Your task to perform on an android device: open app "ZOOM Cloud Meetings" (install if not already installed) and go to login screen Image 0: 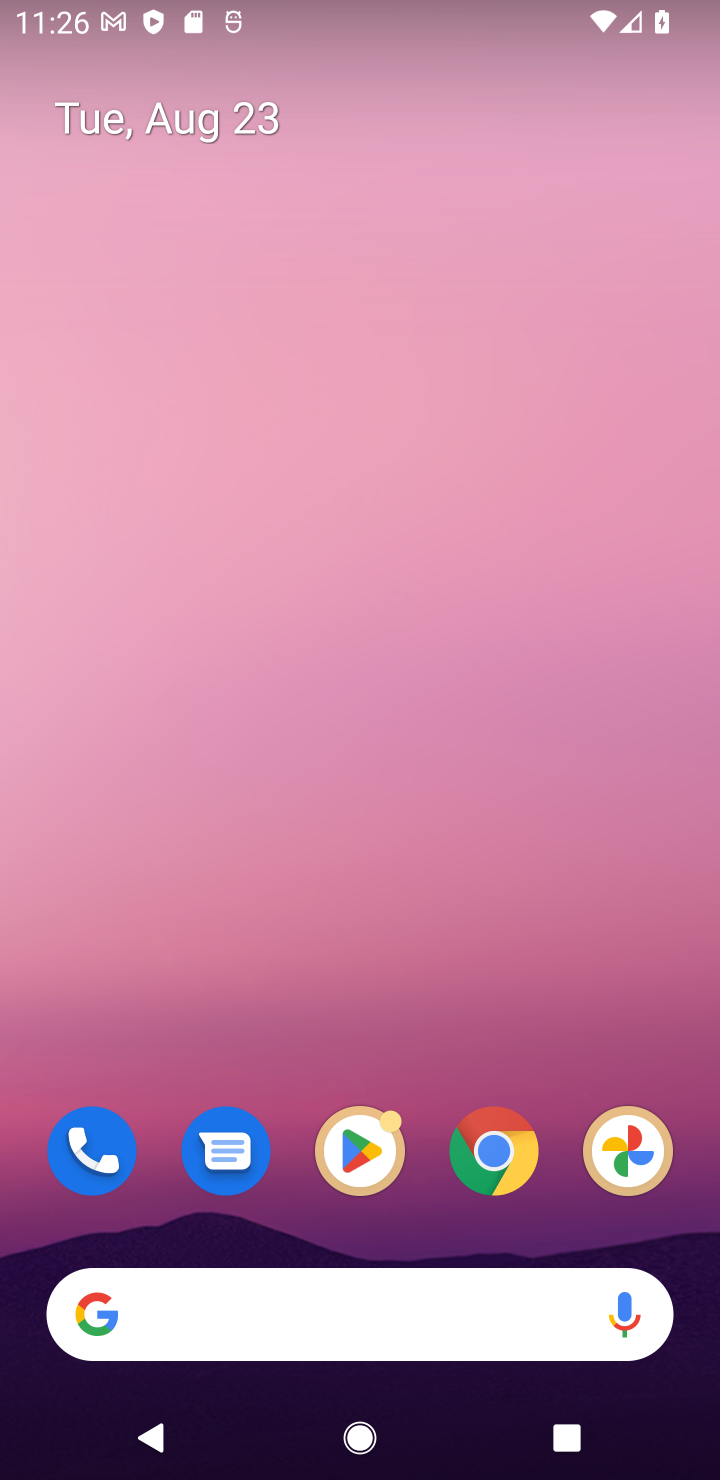
Step 0: drag from (334, 1262) to (411, 83)
Your task to perform on an android device: open app "ZOOM Cloud Meetings" (install if not already installed) and go to login screen Image 1: 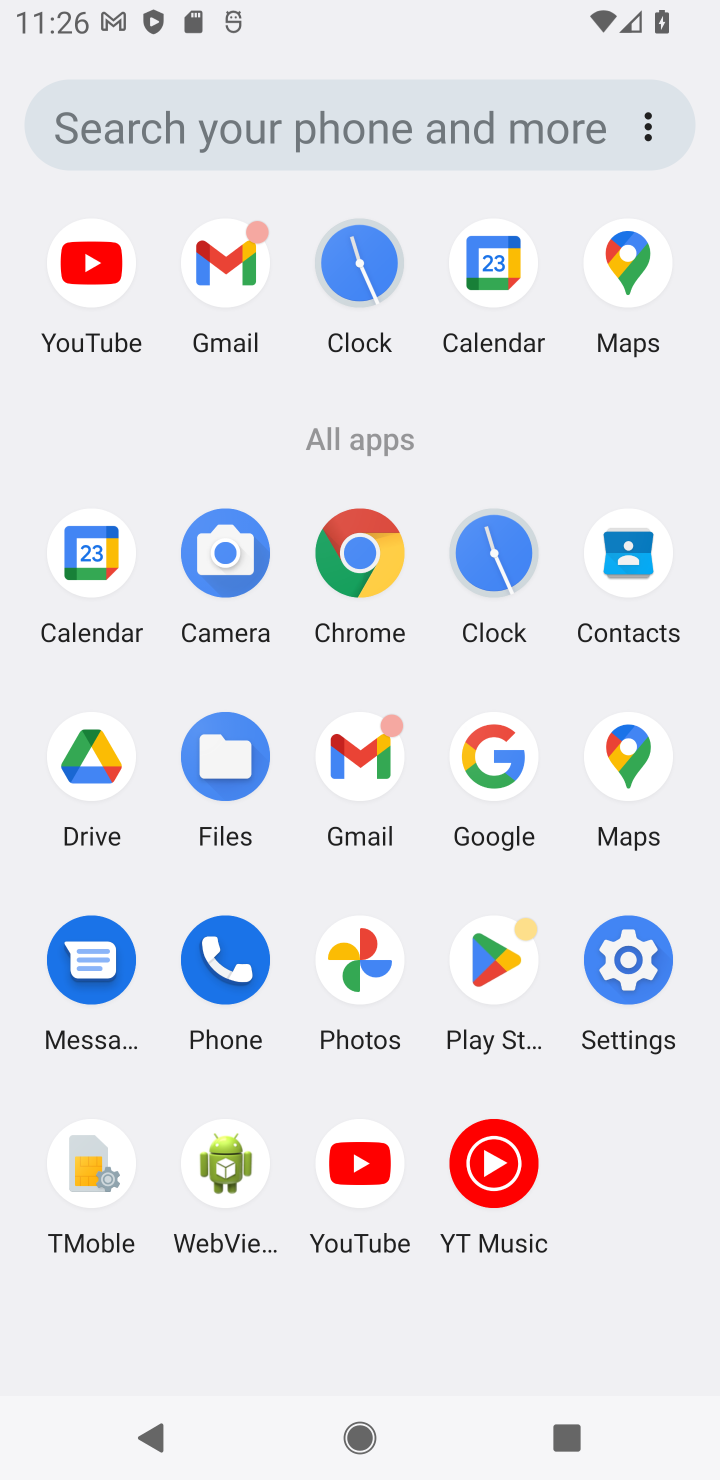
Step 1: click (494, 969)
Your task to perform on an android device: open app "ZOOM Cloud Meetings" (install if not already installed) and go to login screen Image 2: 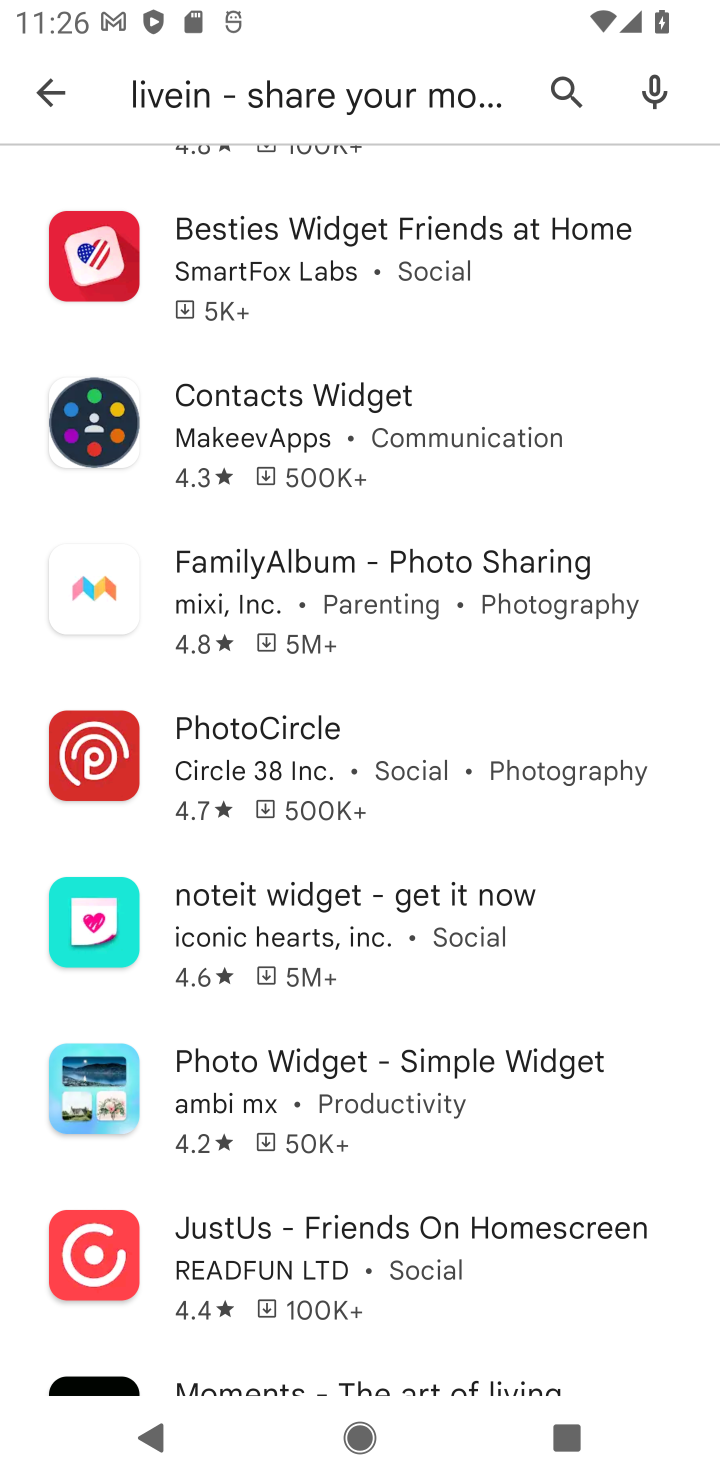
Step 2: press back button
Your task to perform on an android device: open app "ZOOM Cloud Meetings" (install if not already installed) and go to login screen Image 3: 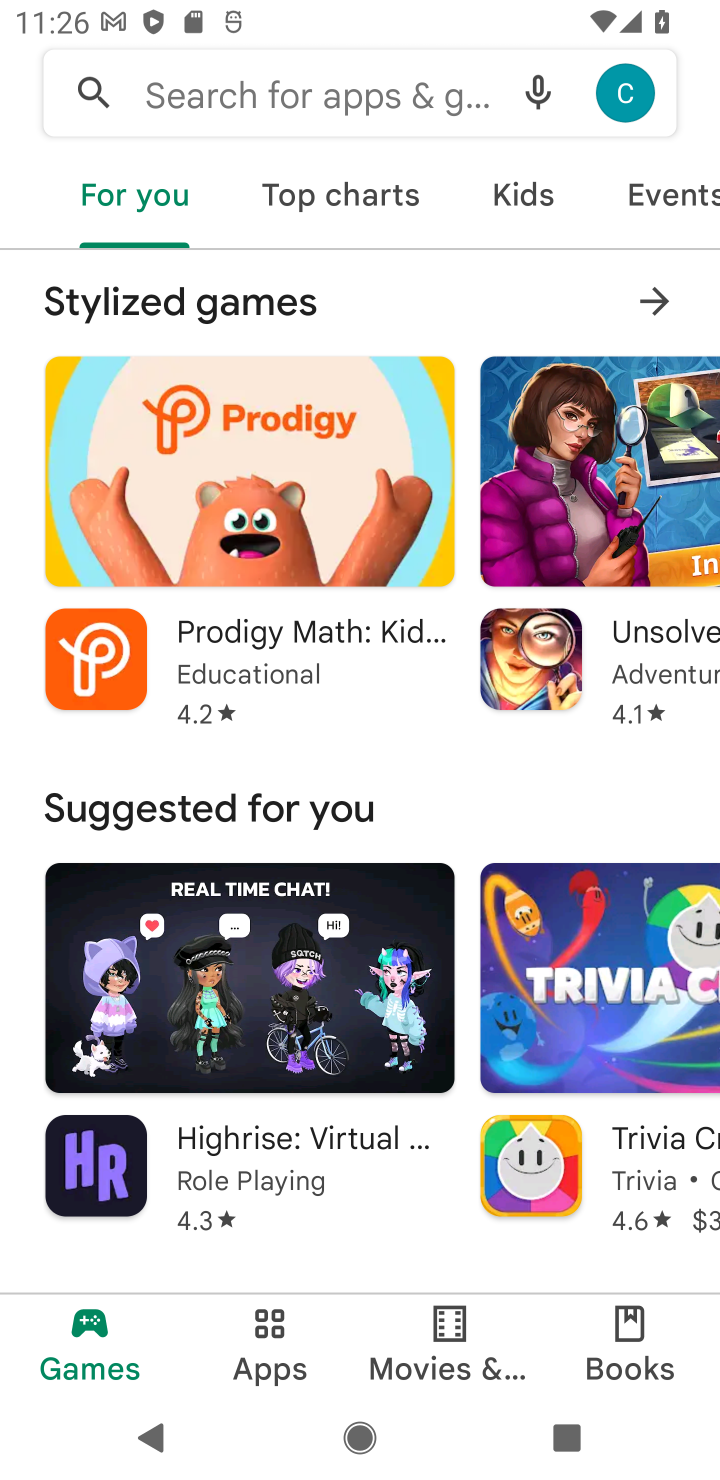
Step 3: click (378, 104)
Your task to perform on an android device: open app "ZOOM Cloud Meetings" (install if not already installed) and go to login screen Image 4: 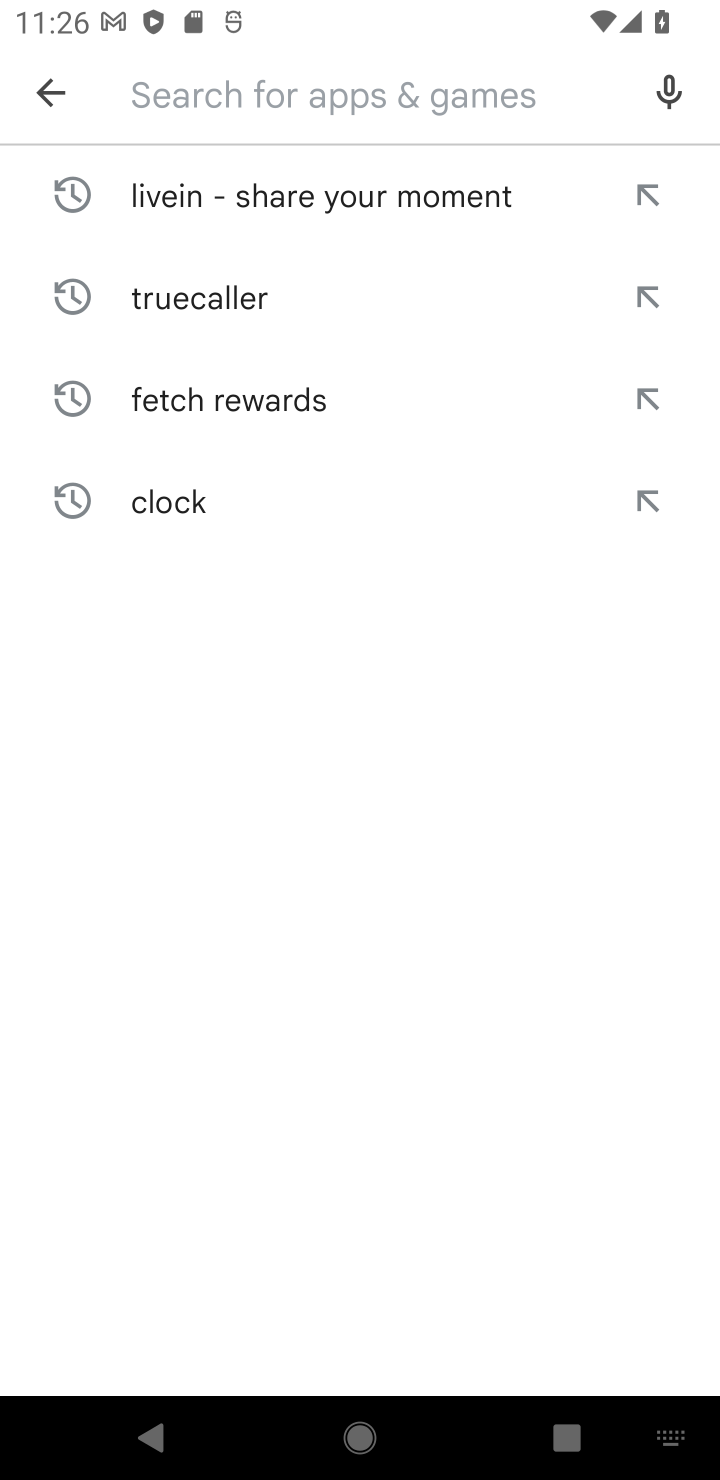
Step 4: type "ZOOM Cloud Meetings"
Your task to perform on an android device: open app "ZOOM Cloud Meetings" (install if not already installed) and go to login screen Image 5: 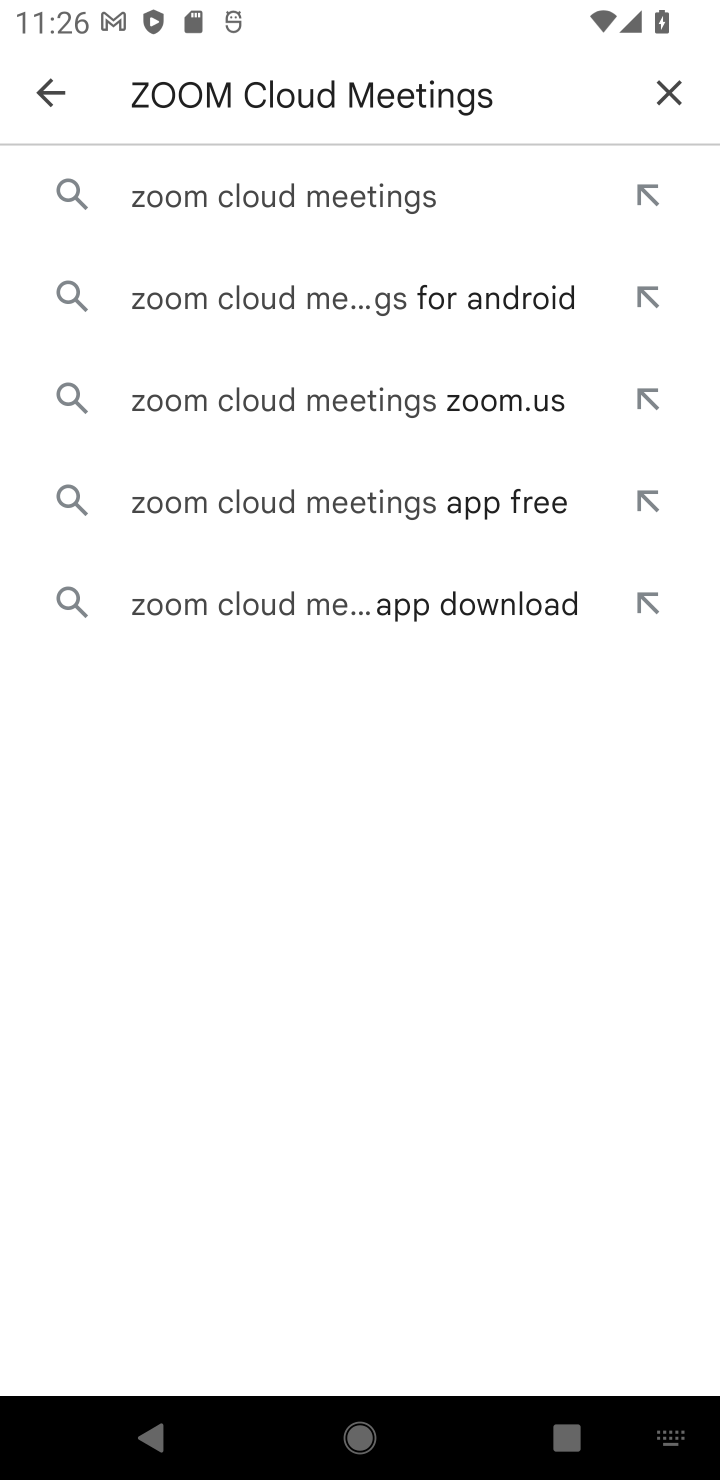
Step 5: click (360, 209)
Your task to perform on an android device: open app "ZOOM Cloud Meetings" (install if not already installed) and go to login screen Image 6: 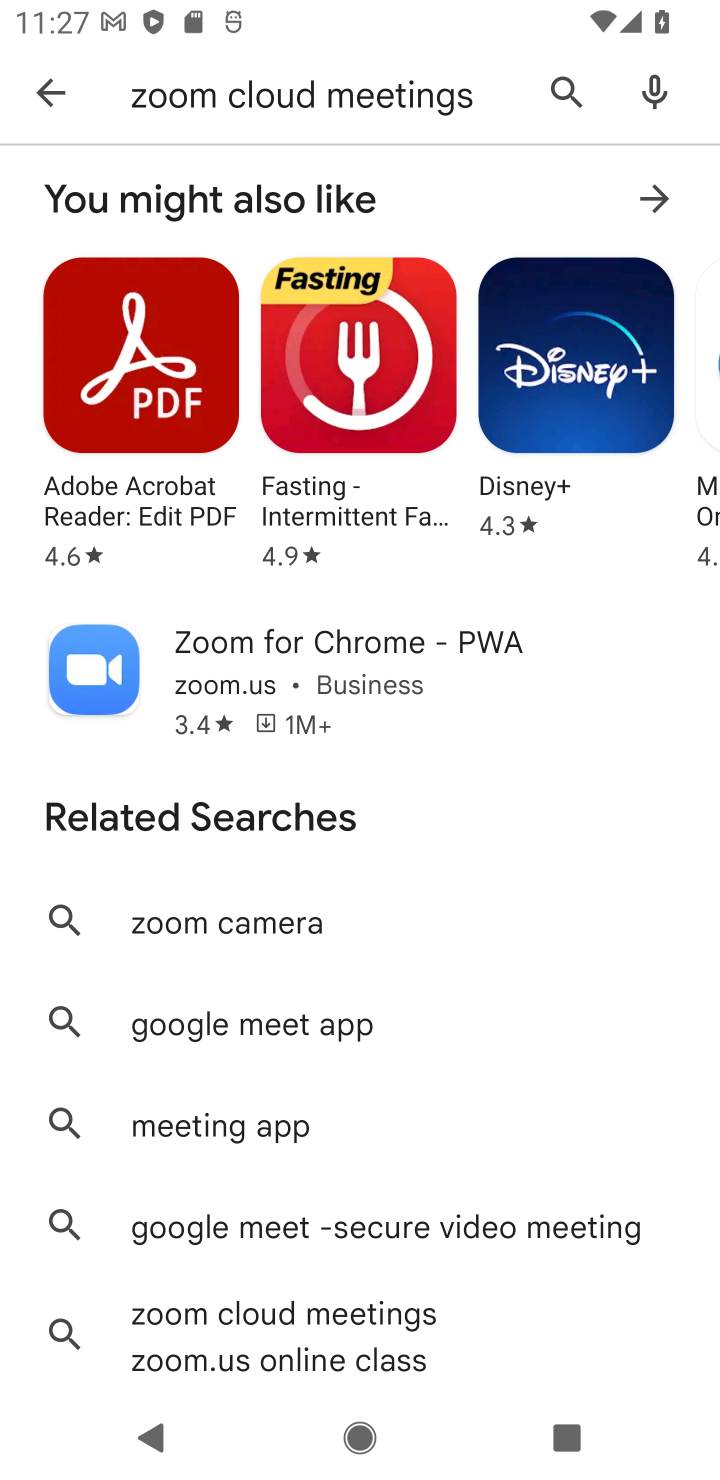
Step 6: click (143, 1315)
Your task to perform on an android device: open app "ZOOM Cloud Meetings" (install if not already installed) and go to login screen Image 7: 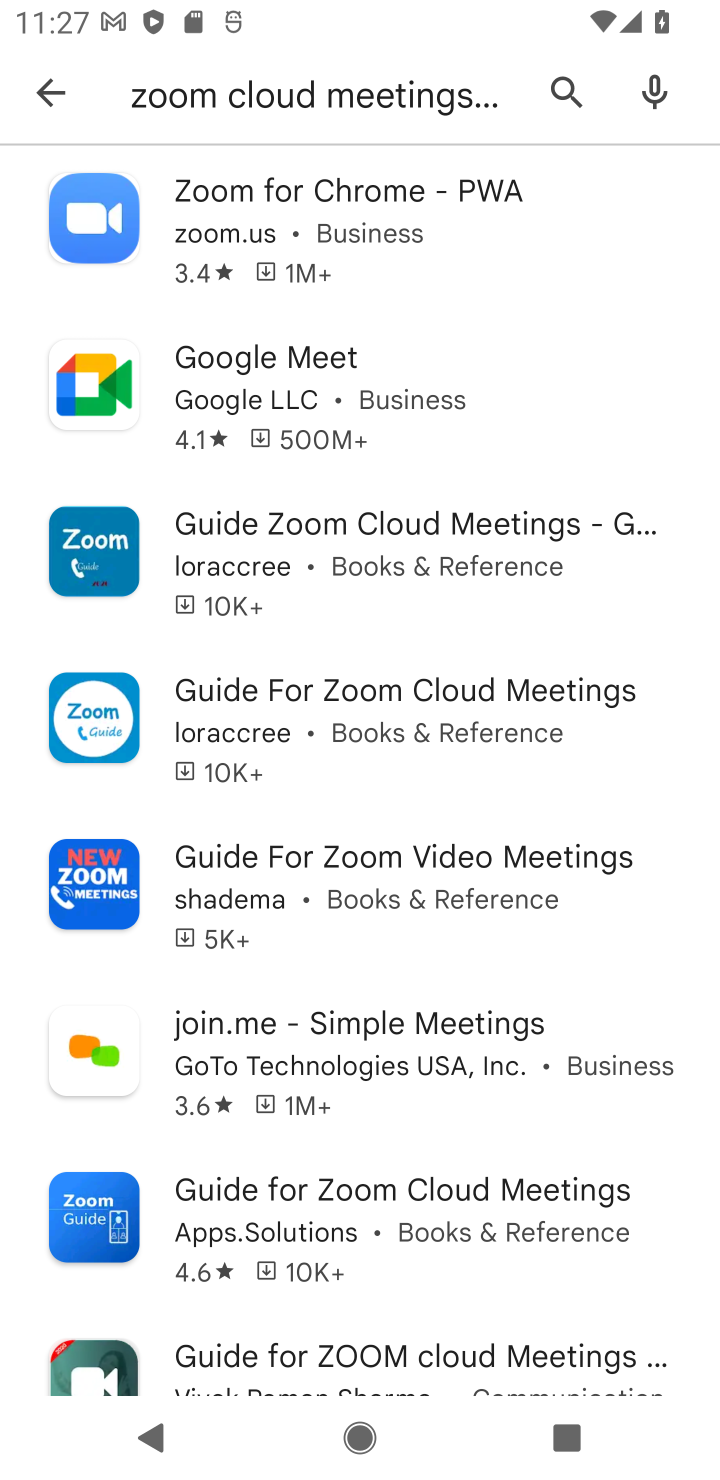
Step 7: drag from (437, 1250) to (583, 1011)
Your task to perform on an android device: open app "ZOOM Cloud Meetings" (install if not already installed) and go to login screen Image 8: 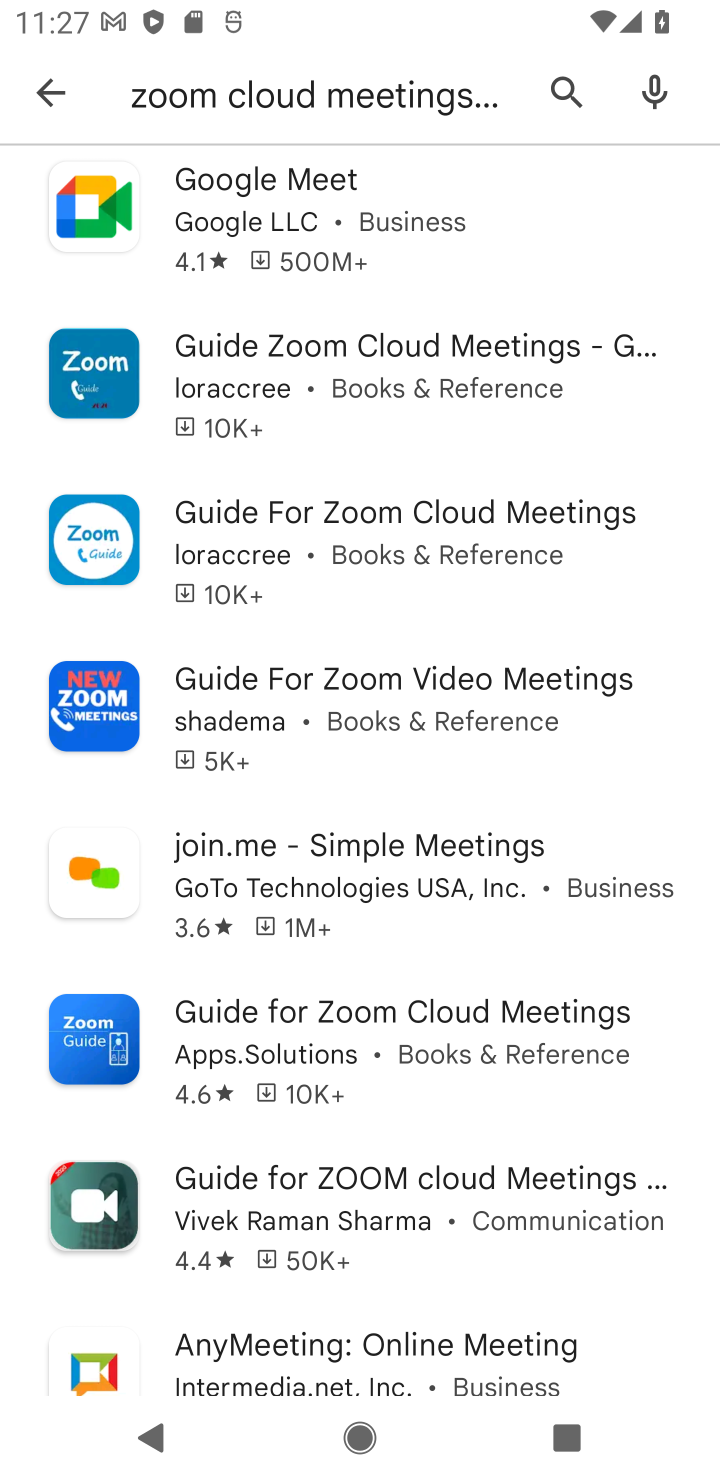
Step 8: drag from (424, 489) to (403, 969)
Your task to perform on an android device: open app "ZOOM Cloud Meetings" (install if not already installed) and go to login screen Image 9: 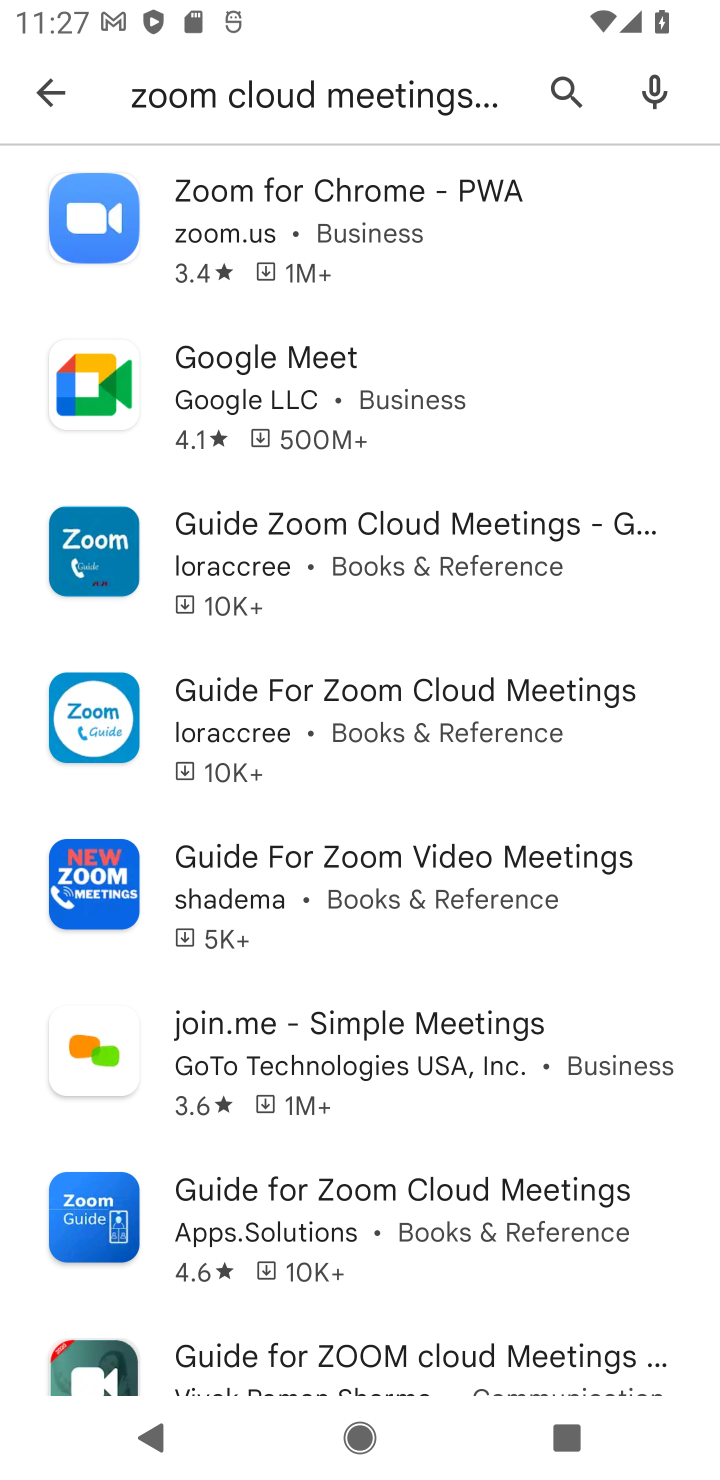
Step 9: click (376, 207)
Your task to perform on an android device: open app "ZOOM Cloud Meetings" (install if not already installed) and go to login screen Image 10: 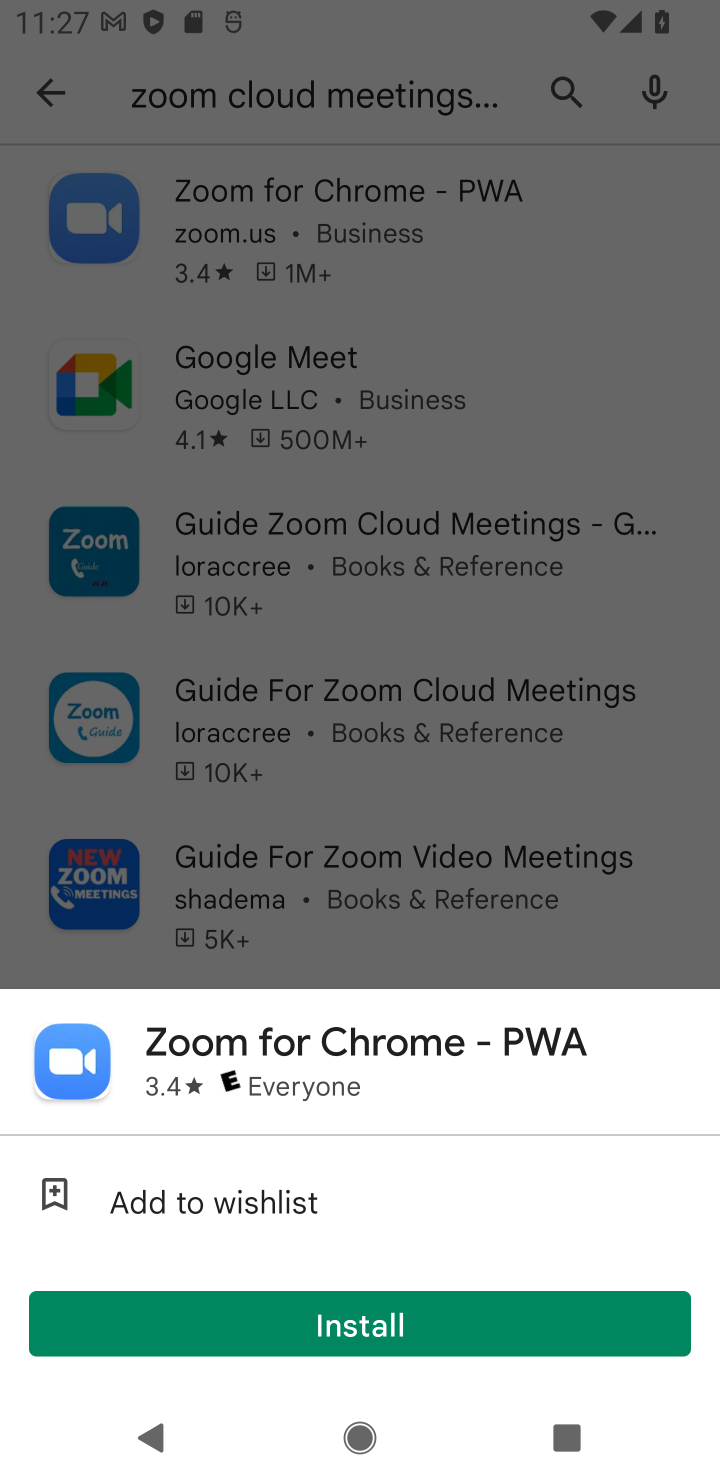
Step 10: click (419, 1332)
Your task to perform on an android device: open app "ZOOM Cloud Meetings" (install if not already installed) and go to login screen Image 11: 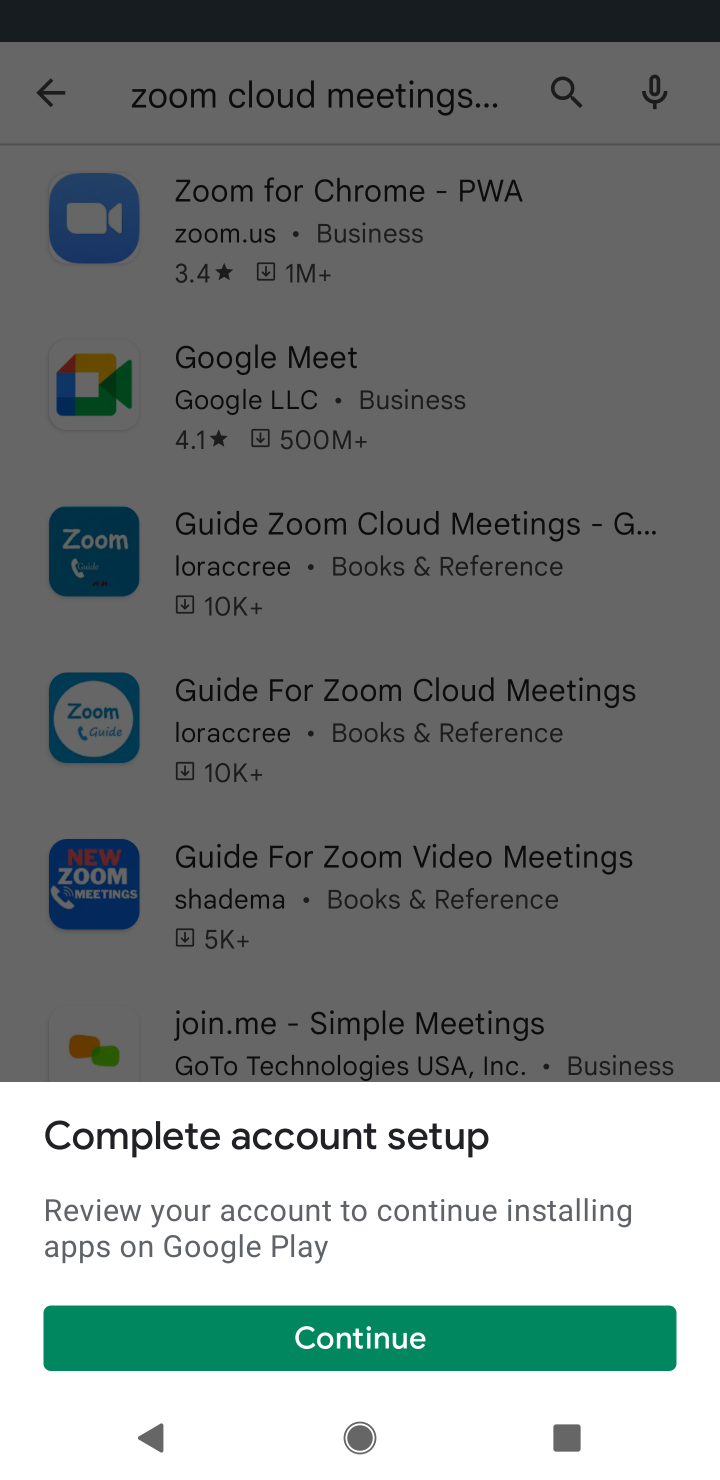
Step 11: click (362, 1354)
Your task to perform on an android device: open app "ZOOM Cloud Meetings" (install if not already installed) and go to login screen Image 12: 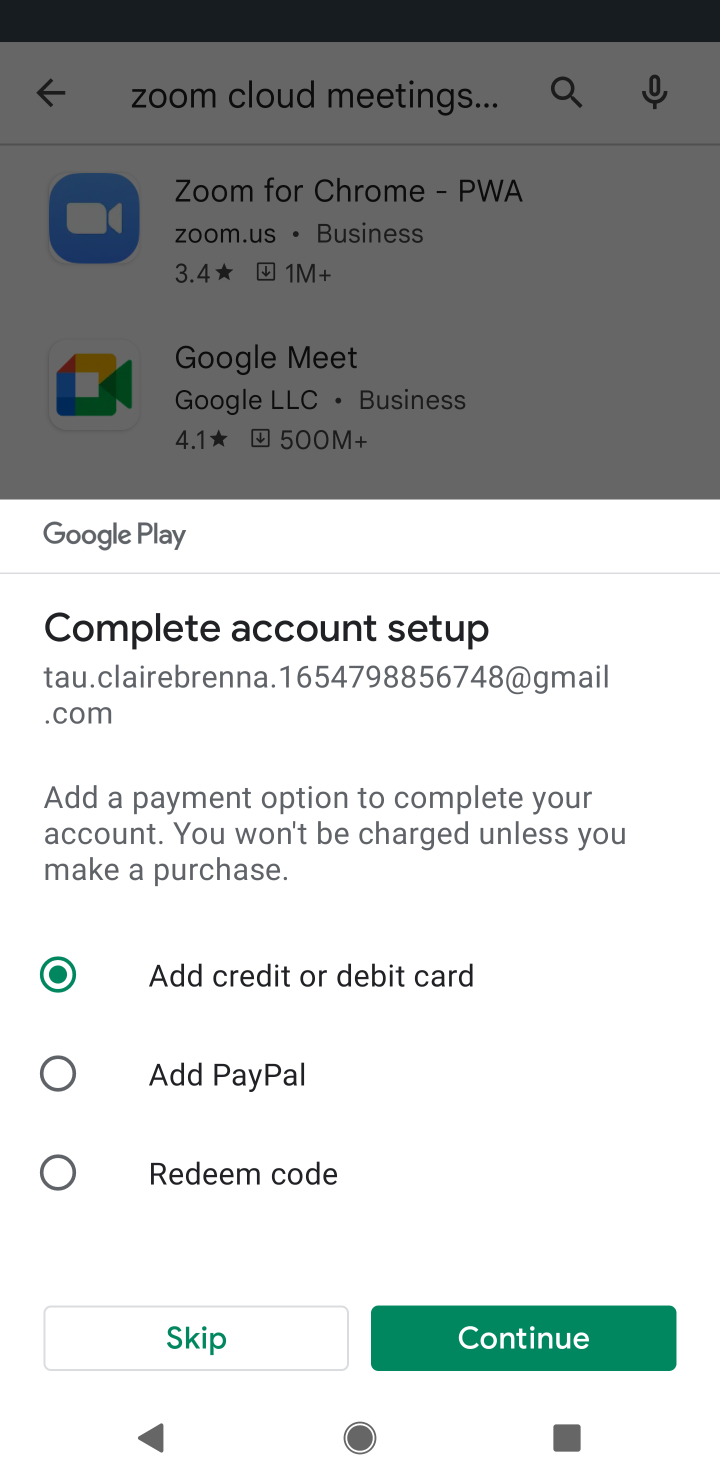
Step 12: click (144, 1317)
Your task to perform on an android device: open app "ZOOM Cloud Meetings" (install if not already installed) and go to login screen Image 13: 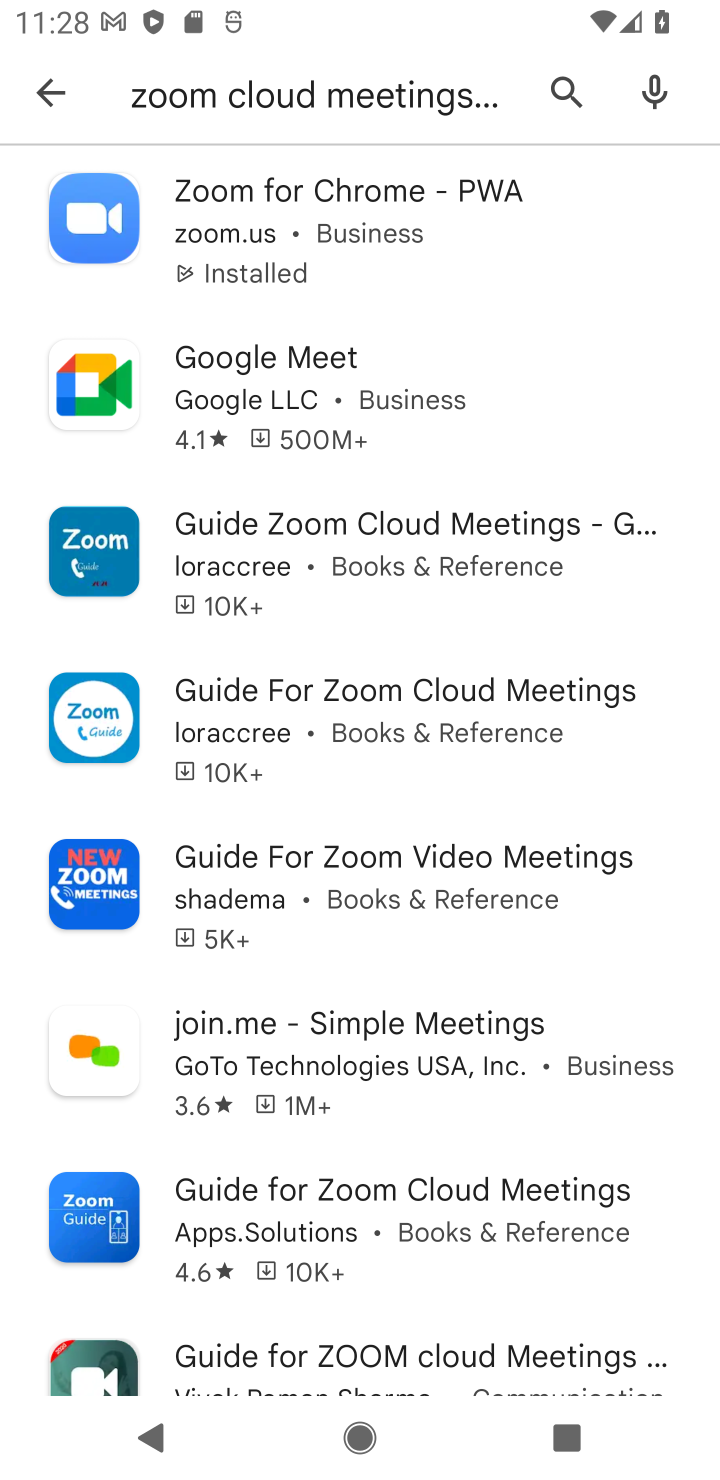
Step 13: click (390, 200)
Your task to perform on an android device: open app "ZOOM Cloud Meetings" (install if not already installed) and go to login screen Image 14: 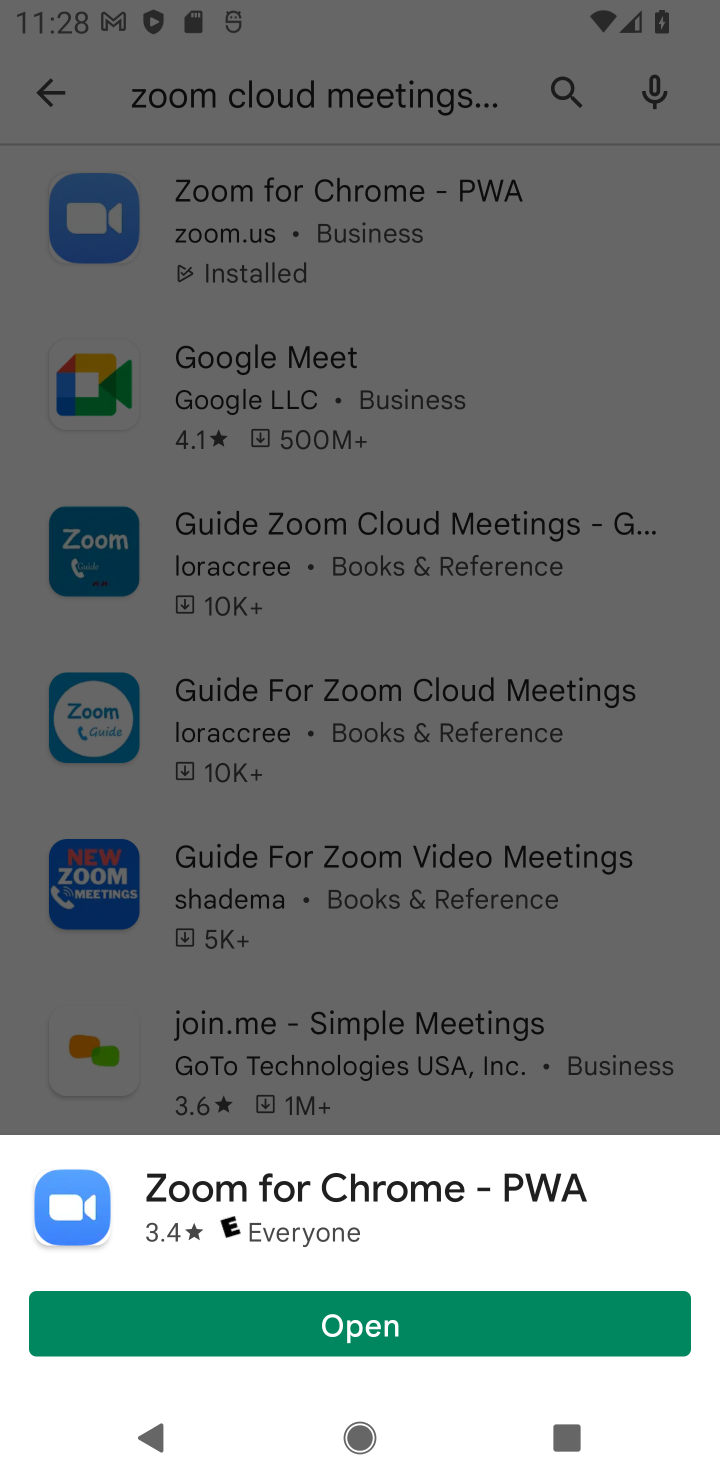
Step 14: click (337, 1354)
Your task to perform on an android device: open app "ZOOM Cloud Meetings" (install if not already installed) and go to login screen Image 15: 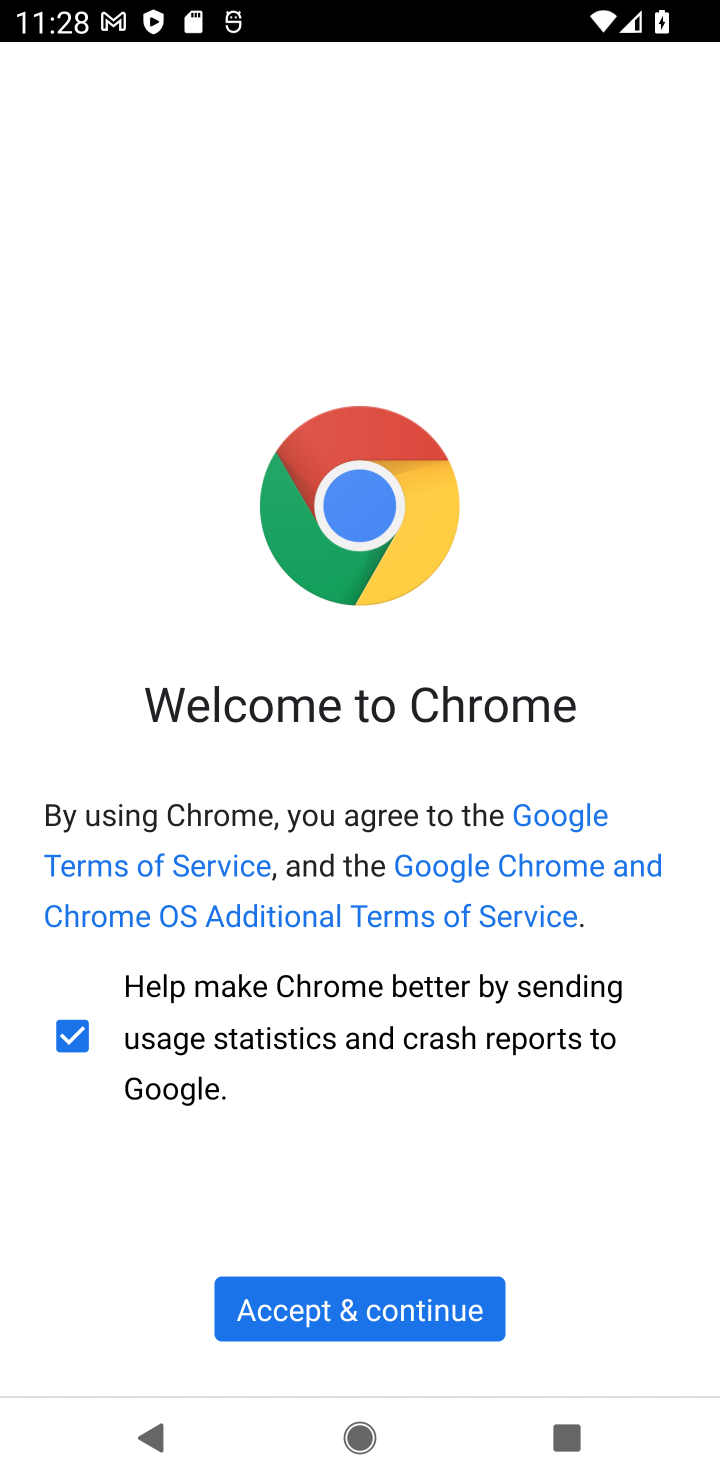
Step 15: click (364, 1309)
Your task to perform on an android device: open app "ZOOM Cloud Meetings" (install if not already installed) and go to login screen Image 16: 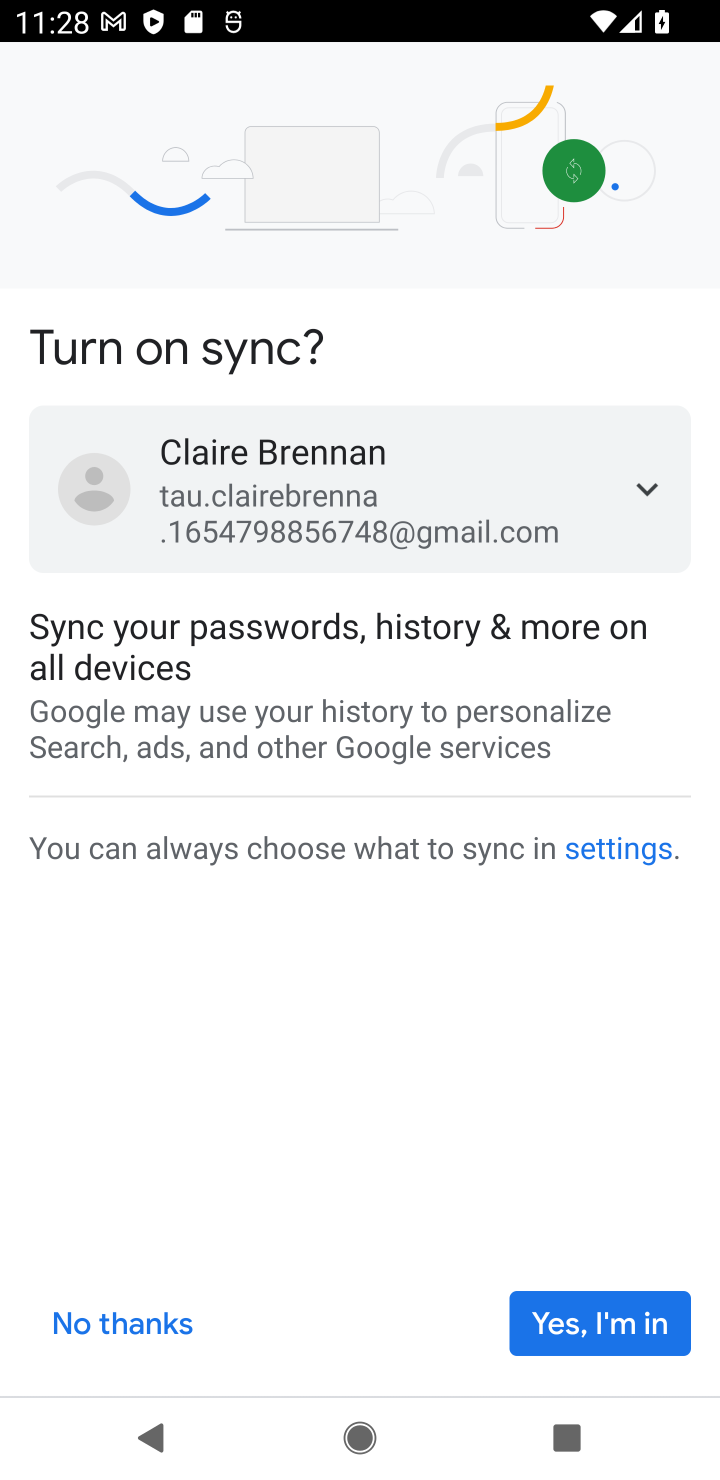
Step 16: click (162, 1341)
Your task to perform on an android device: open app "ZOOM Cloud Meetings" (install if not already installed) and go to login screen Image 17: 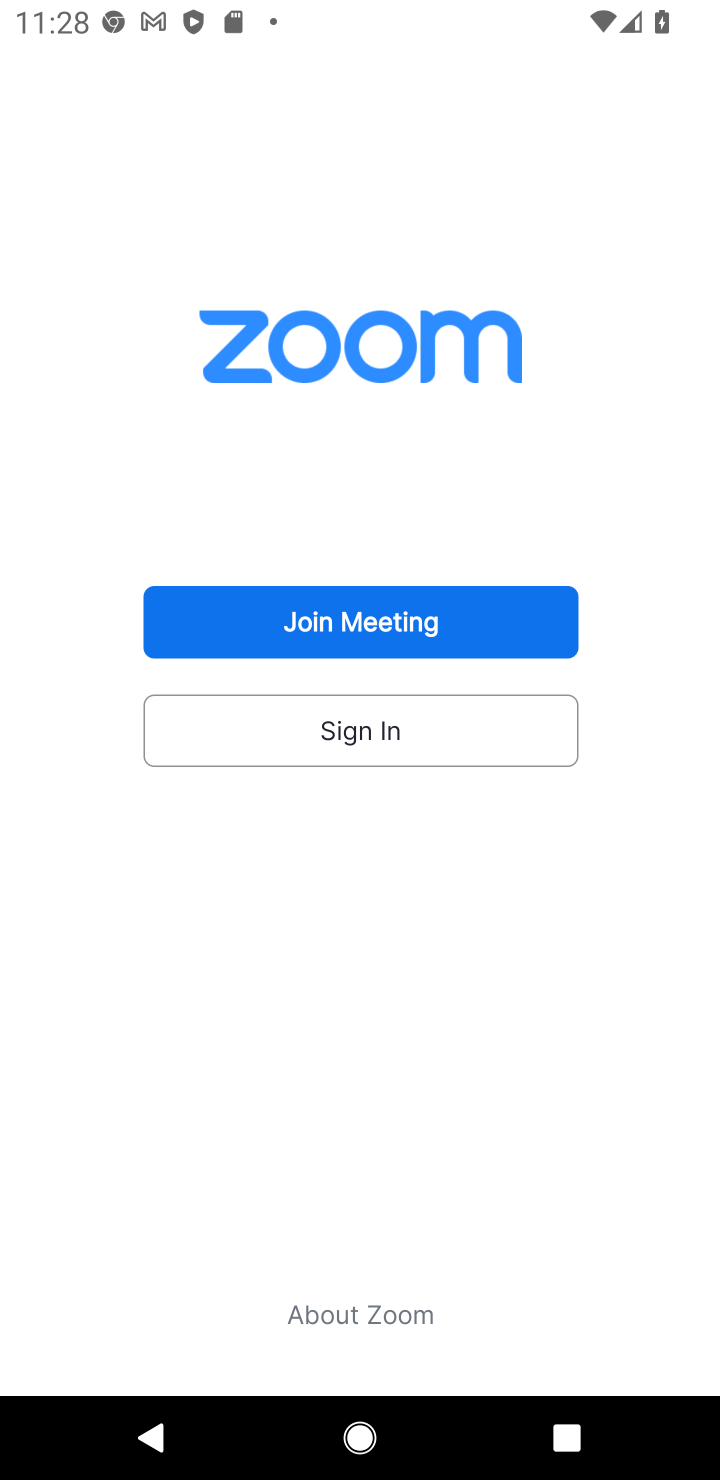
Step 17: click (302, 763)
Your task to perform on an android device: open app "ZOOM Cloud Meetings" (install if not already installed) and go to login screen Image 18: 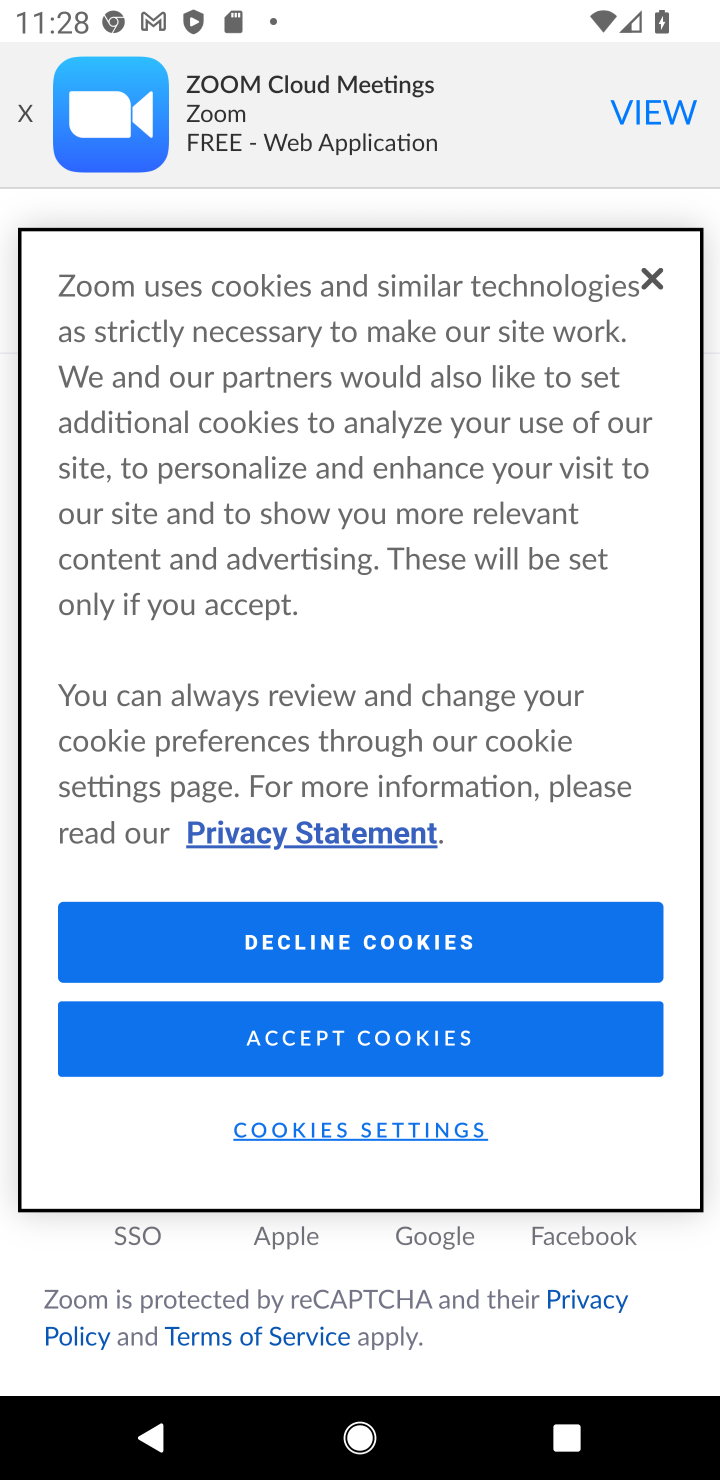
Step 18: task complete